Your task to perform on an android device: Clear all items from cart on ebay. Search for dell xps on ebay, select the first entry, add it to the cart, then select checkout. Image 0: 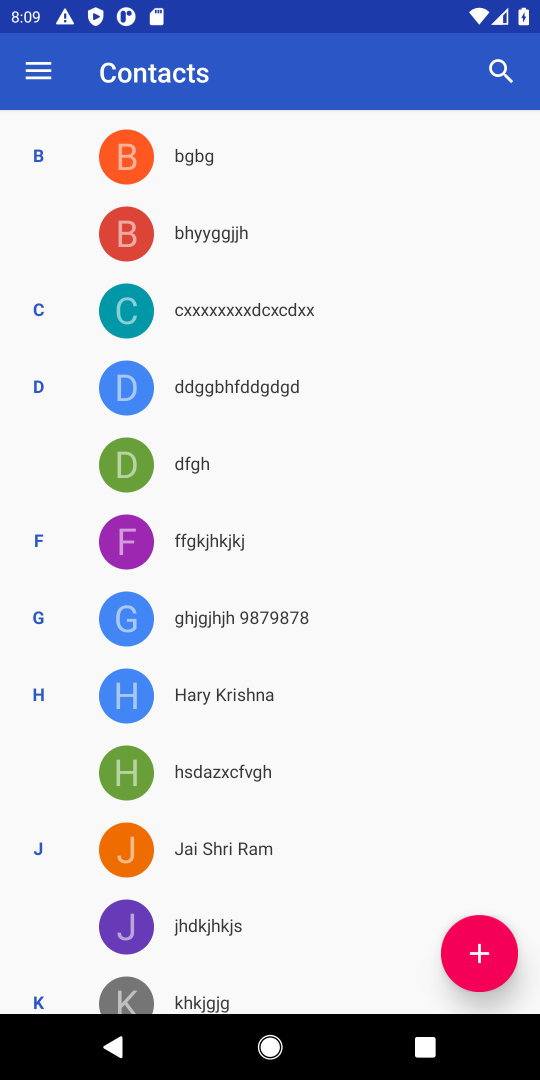
Step 0: press home button
Your task to perform on an android device: Clear all items from cart on ebay. Search for dell xps on ebay, select the first entry, add it to the cart, then select checkout. Image 1: 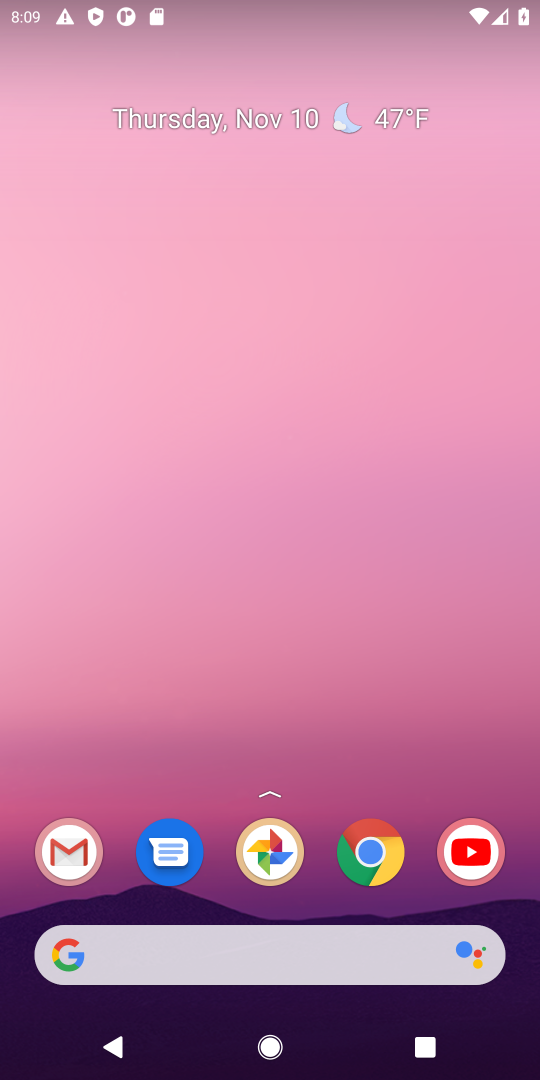
Step 1: click (373, 856)
Your task to perform on an android device: Clear all items from cart on ebay. Search for dell xps on ebay, select the first entry, add it to the cart, then select checkout. Image 2: 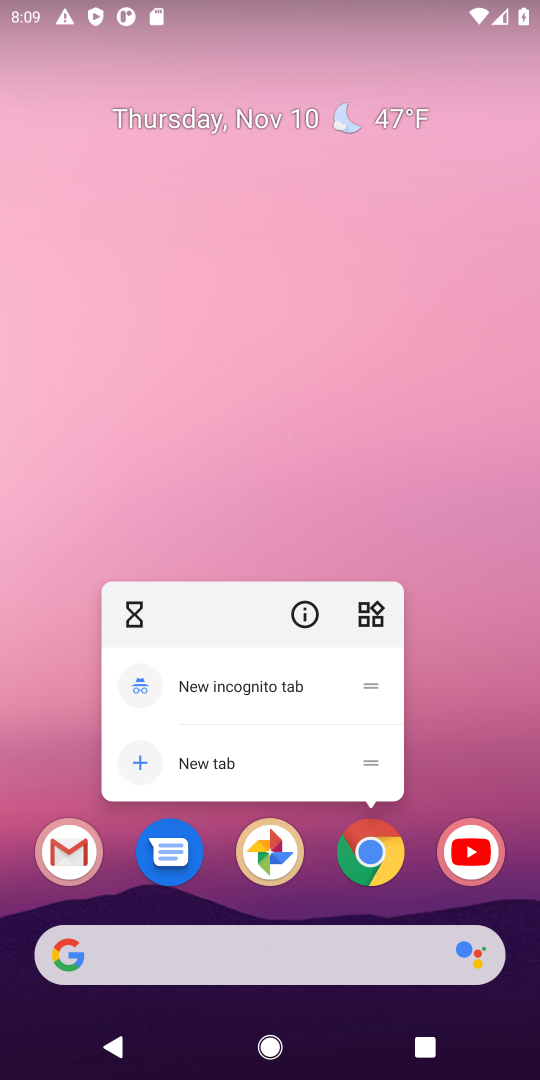
Step 2: click (373, 859)
Your task to perform on an android device: Clear all items from cart on ebay. Search for dell xps on ebay, select the first entry, add it to the cart, then select checkout. Image 3: 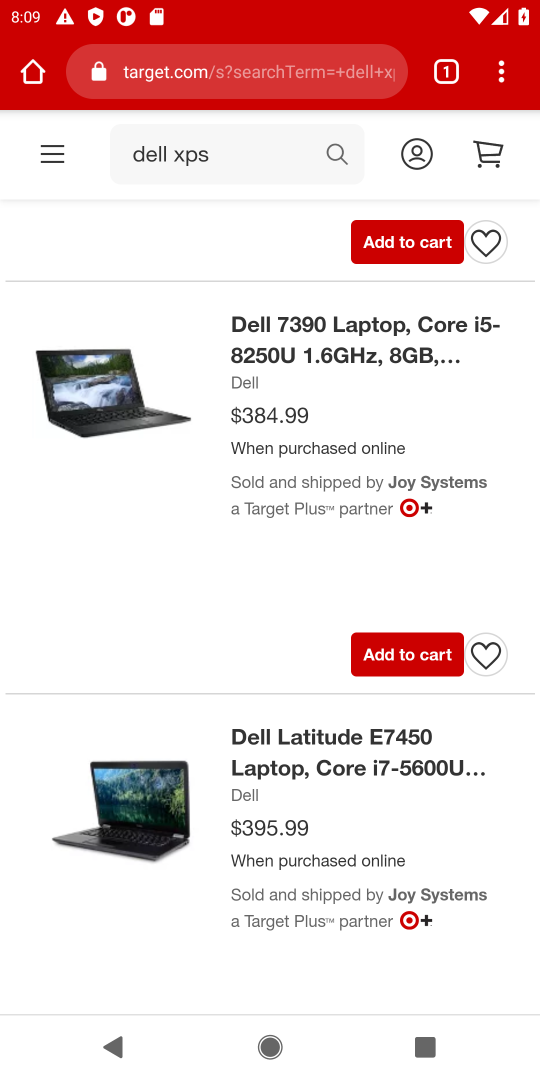
Step 3: click (262, 76)
Your task to perform on an android device: Clear all items from cart on ebay. Search for dell xps on ebay, select the first entry, add it to the cart, then select checkout. Image 4: 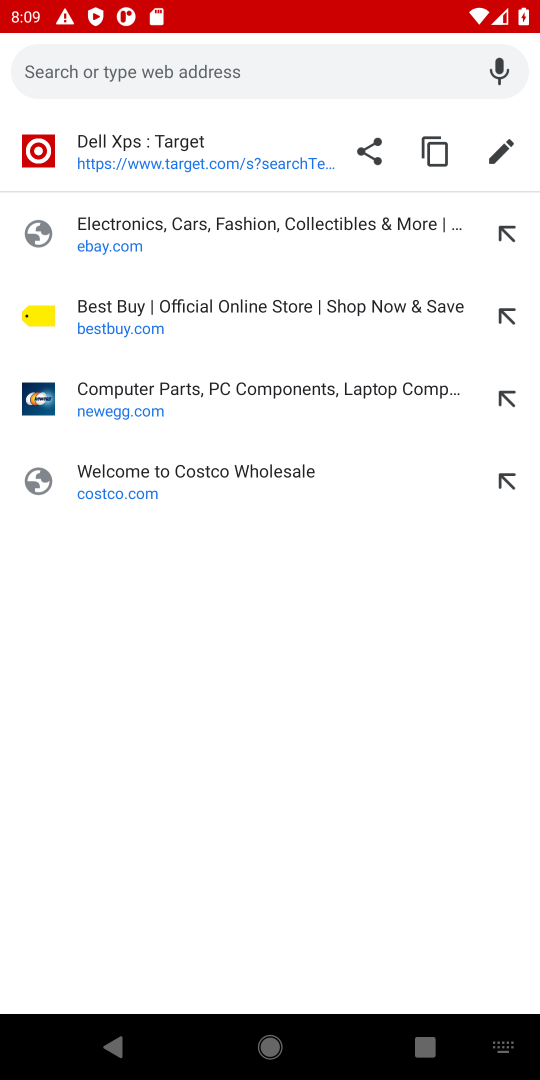
Step 4: type "ebay"
Your task to perform on an android device: Clear all items from cart on ebay. Search for dell xps on ebay, select the first entry, add it to the cart, then select checkout. Image 5: 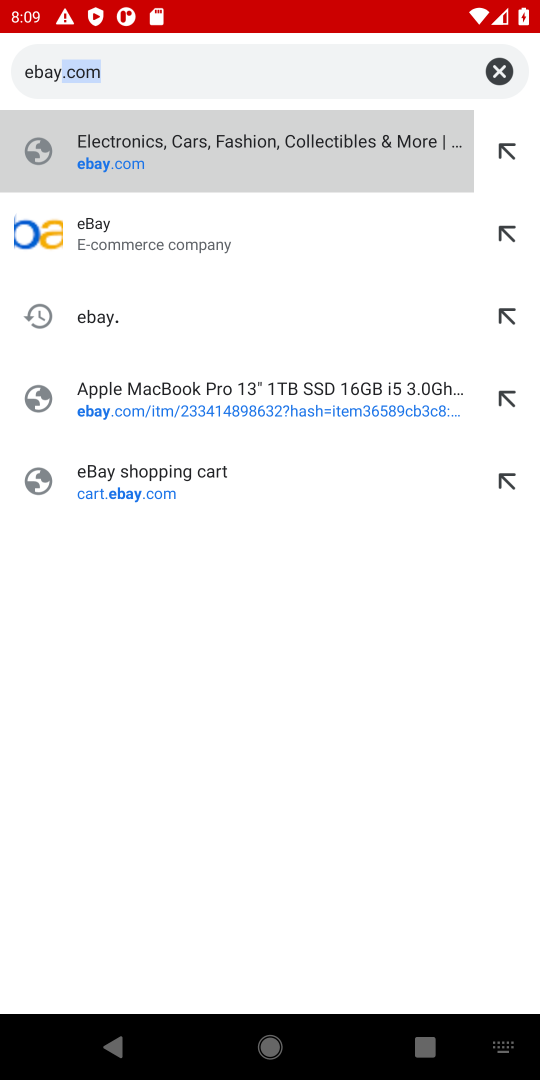
Step 5: press enter
Your task to perform on an android device: Clear all items from cart on ebay. Search for dell xps on ebay, select the first entry, add it to the cart, then select checkout. Image 6: 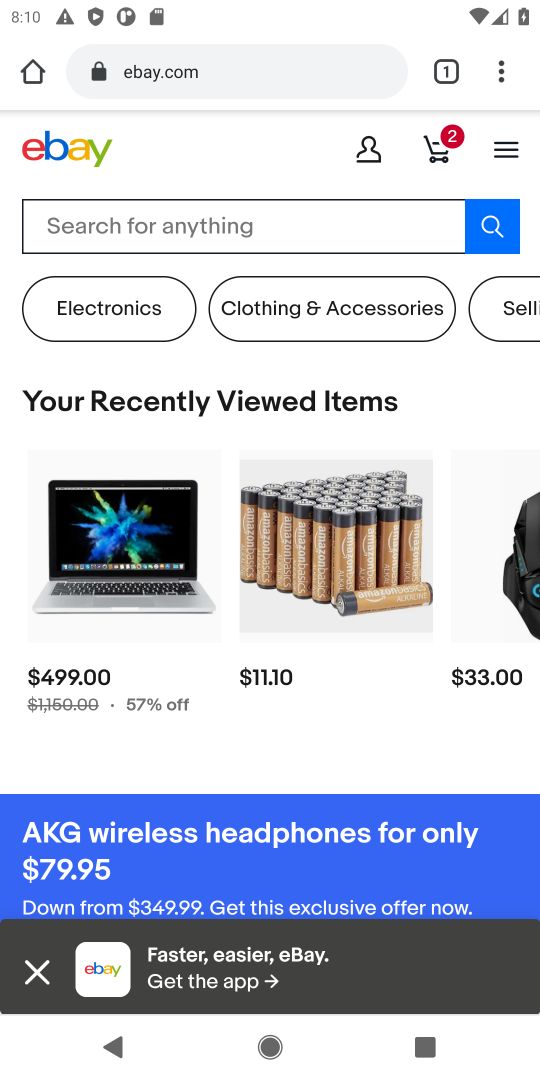
Step 6: click (436, 142)
Your task to perform on an android device: Clear all items from cart on ebay. Search for dell xps on ebay, select the first entry, add it to the cart, then select checkout. Image 7: 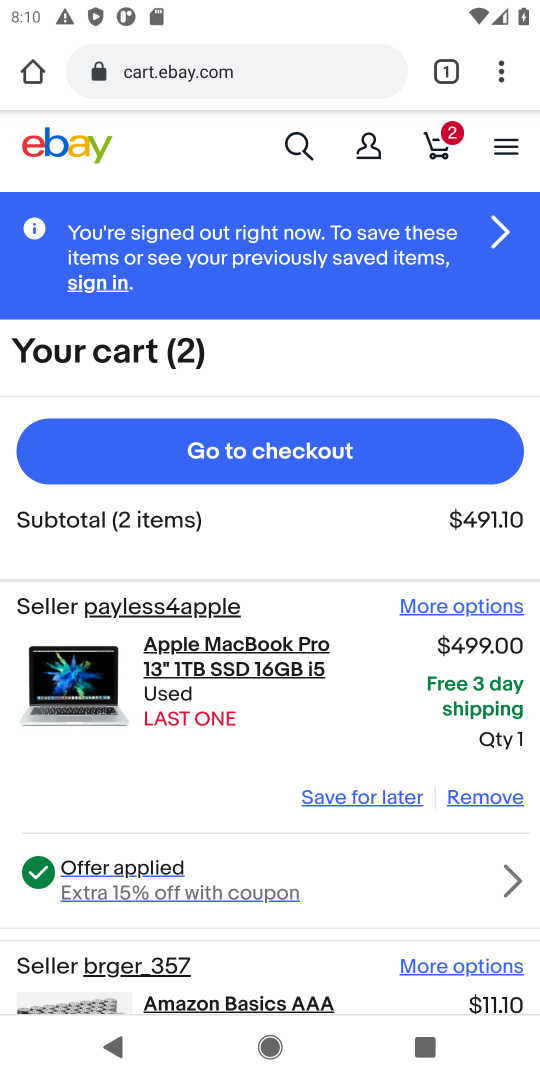
Step 7: click (475, 799)
Your task to perform on an android device: Clear all items from cart on ebay. Search for dell xps on ebay, select the first entry, add it to the cart, then select checkout. Image 8: 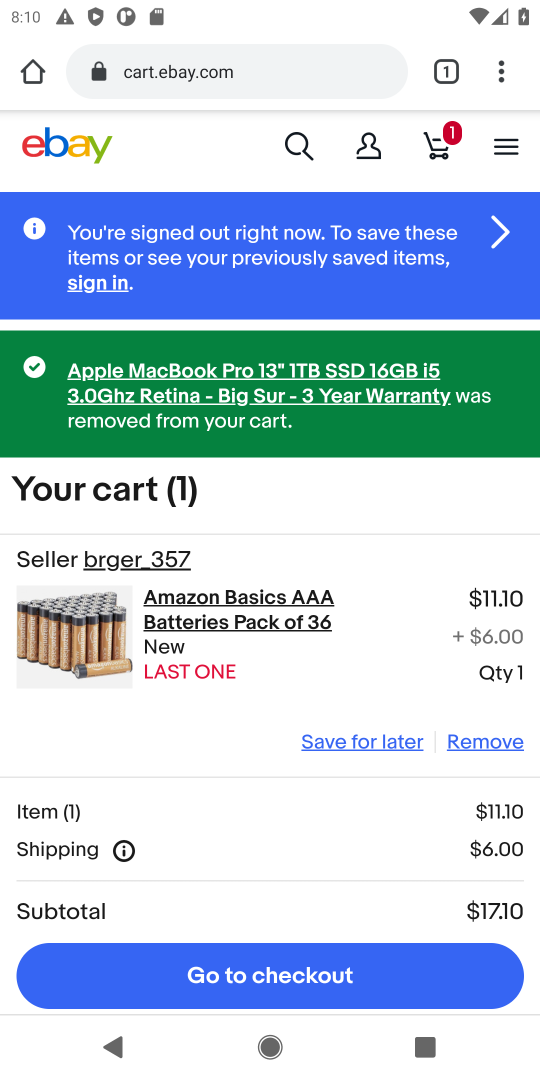
Step 8: click (469, 745)
Your task to perform on an android device: Clear all items from cart on ebay. Search for dell xps on ebay, select the first entry, add it to the cart, then select checkout. Image 9: 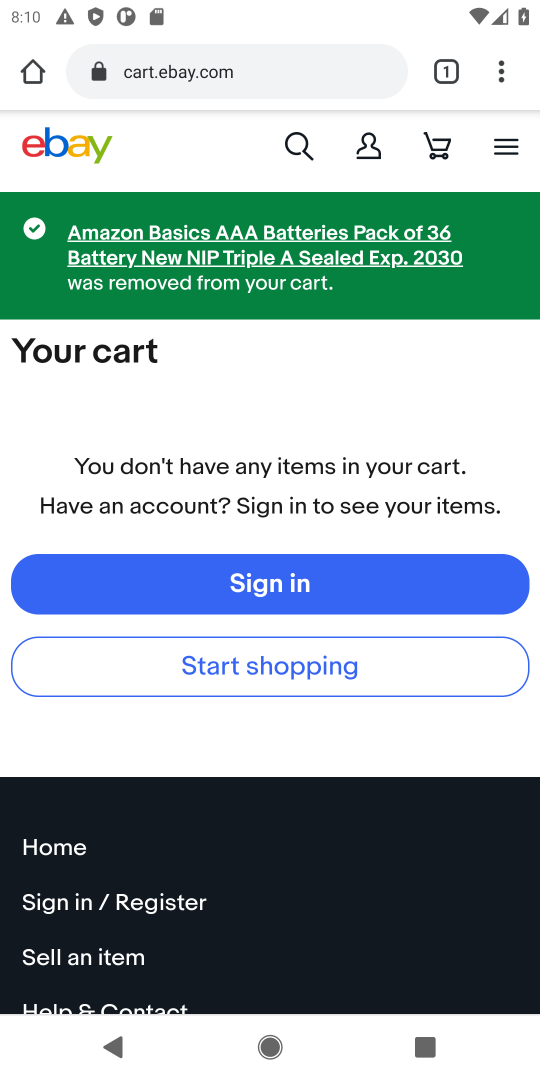
Step 9: click (298, 141)
Your task to perform on an android device: Clear all items from cart on ebay. Search for dell xps on ebay, select the first entry, add it to the cart, then select checkout. Image 10: 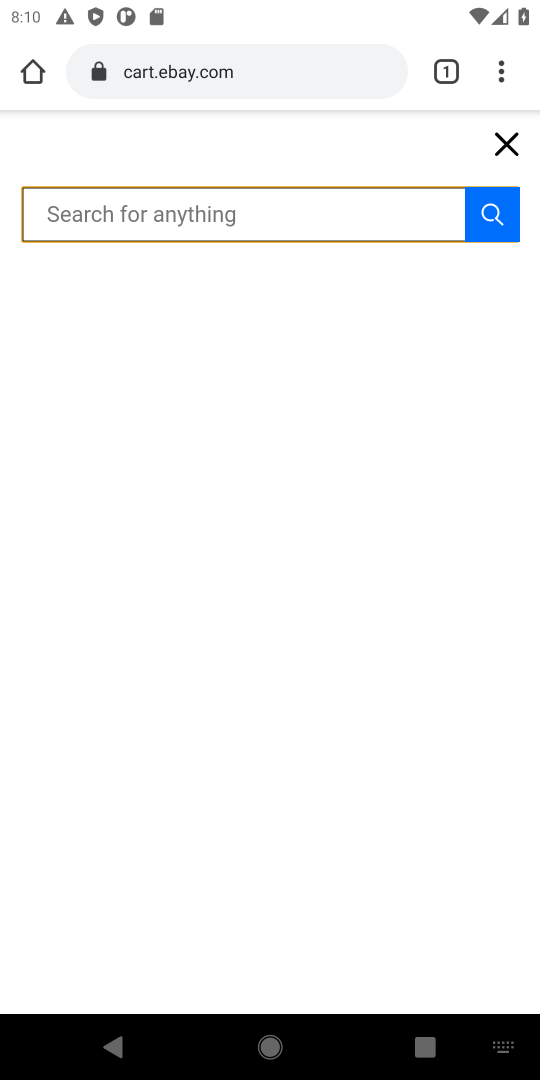
Step 10: click (175, 213)
Your task to perform on an android device: Clear all items from cart on ebay. Search for dell xps on ebay, select the first entry, add it to the cart, then select checkout. Image 11: 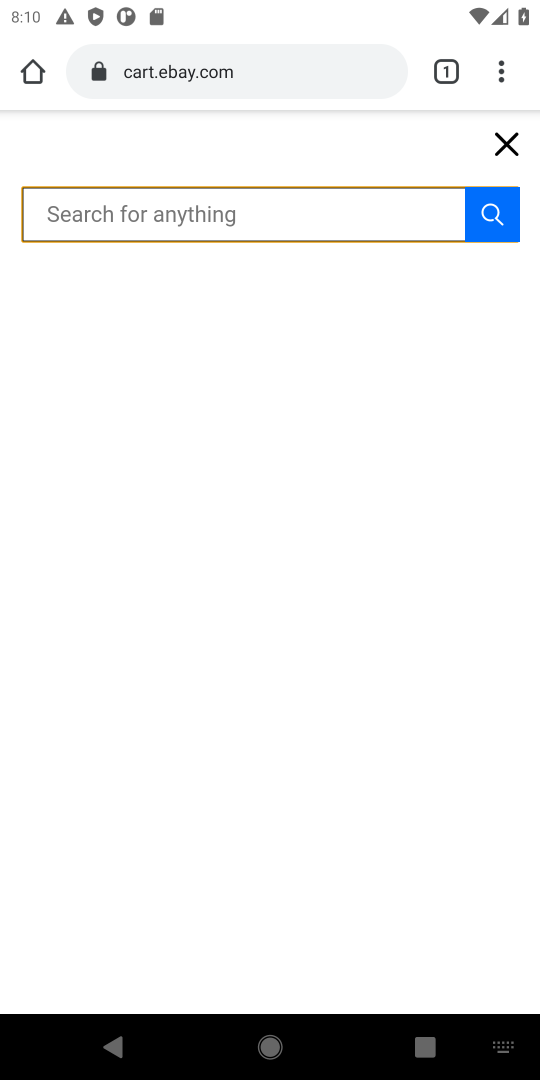
Step 11: type " dell xps"
Your task to perform on an android device: Clear all items from cart on ebay. Search for dell xps on ebay, select the first entry, add it to the cart, then select checkout. Image 12: 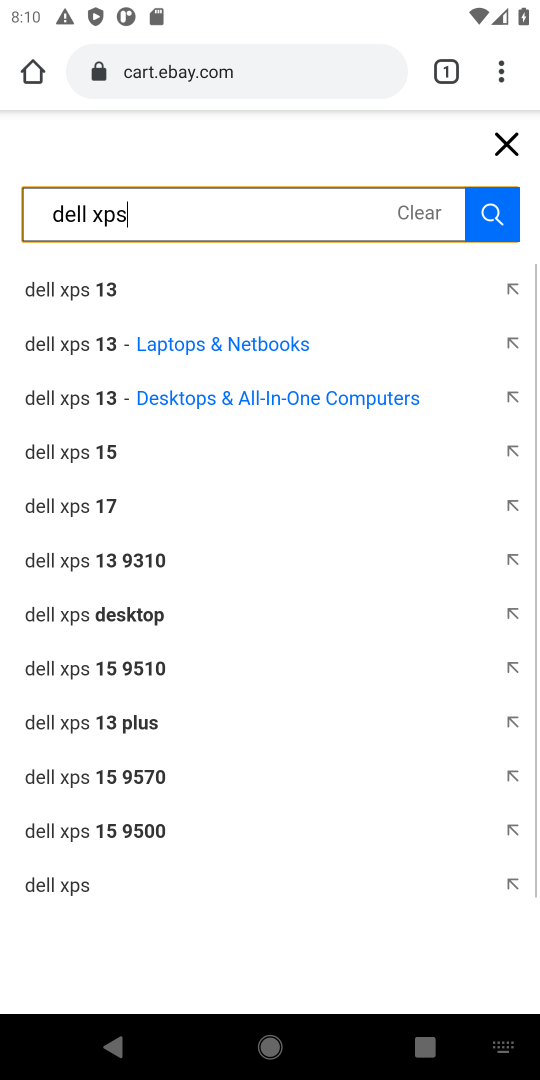
Step 12: press enter
Your task to perform on an android device: Clear all items from cart on ebay. Search for dell xps on ebay, select the first entry, add it to the cart, then select checkout. Image 13: 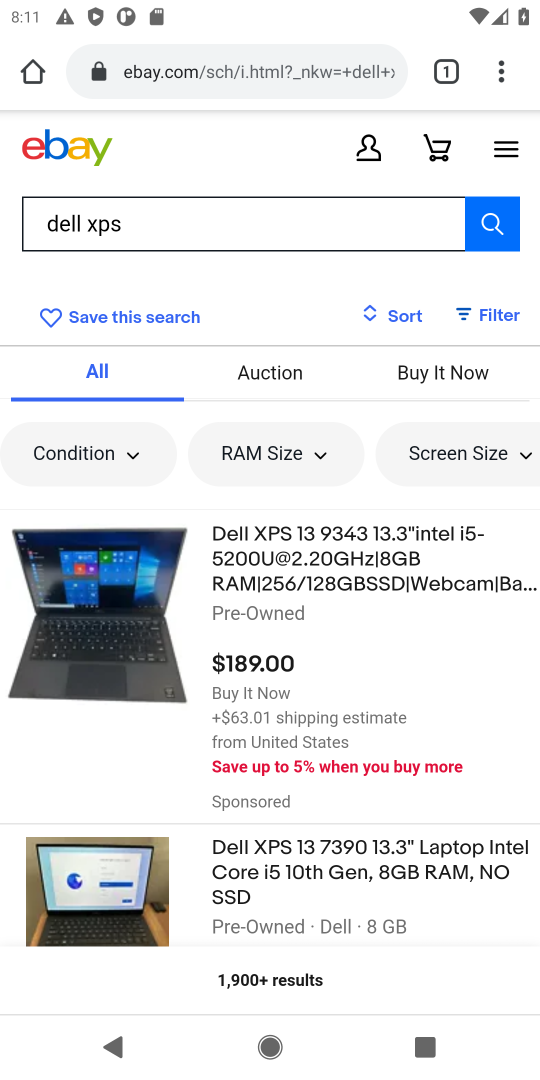
Step 13: click (288, 550)
Your task to perform on an android device: Clear all items from cart on ebay. Search for dell xps on ebay, select the first entry, add it to the cart, then select checkout. Image 14: 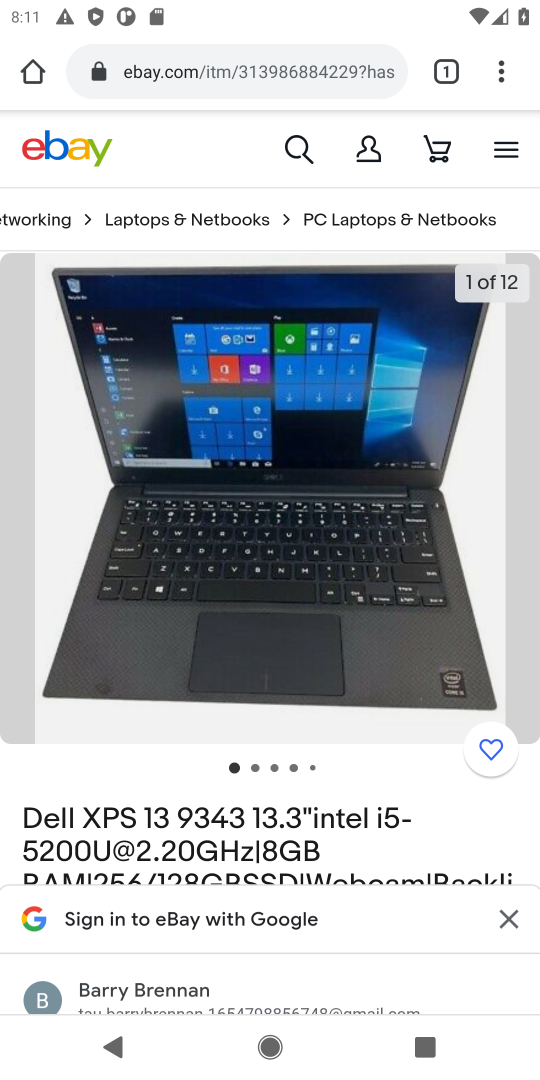
Step 14: drag from (225, 921) to (378, 399)
Your task to perform on an android device: Clear all items from cart on ebay. Search for dell xps on ebay, select the first entry, add it to the cart, then select checkout. Image 15: 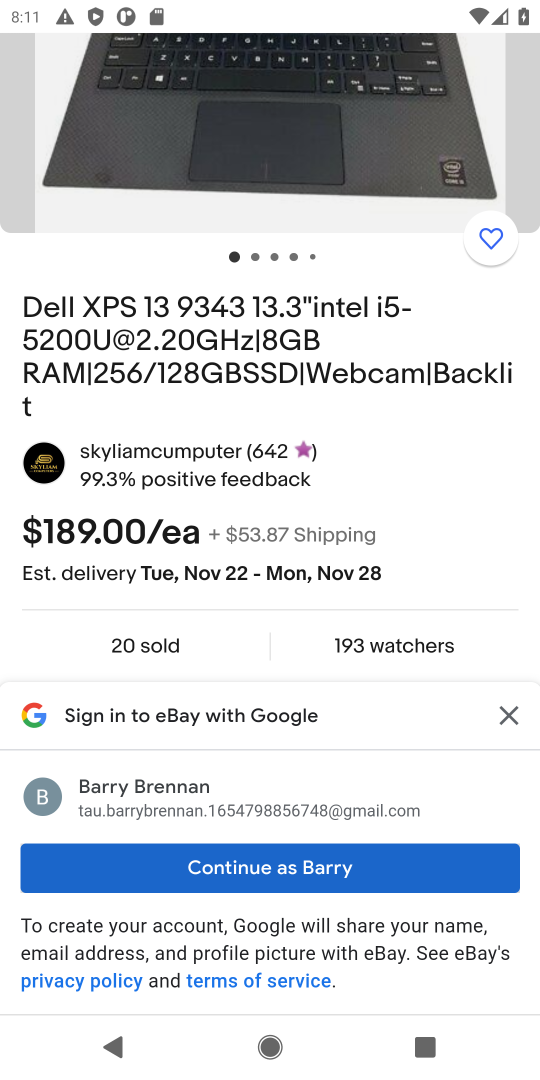
Step 15: click (505, 717)
Your task to perform on an android device: Clear all items from cart on ebay. Search for dell xps on ebay, select the first entry, add it to the cart, then select checkout. Image 16: 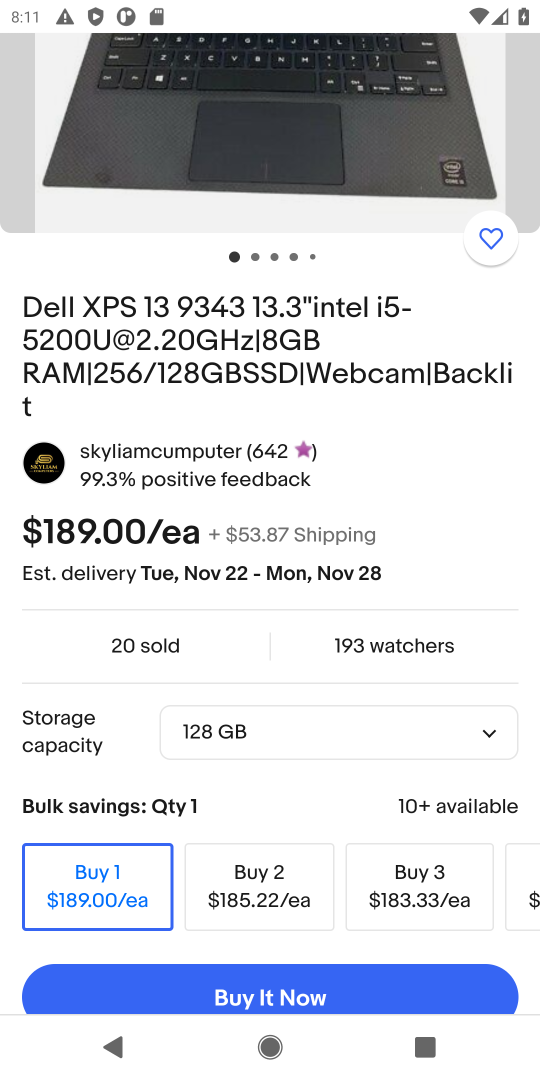
Step 16: drag from (266, 768) to (406, 343)
Your task to perform on an android device: Clear all items from cart on ebay. Search for dell xps on ebay, select the first entry, add it to the cart, then select checkout. Image 17: 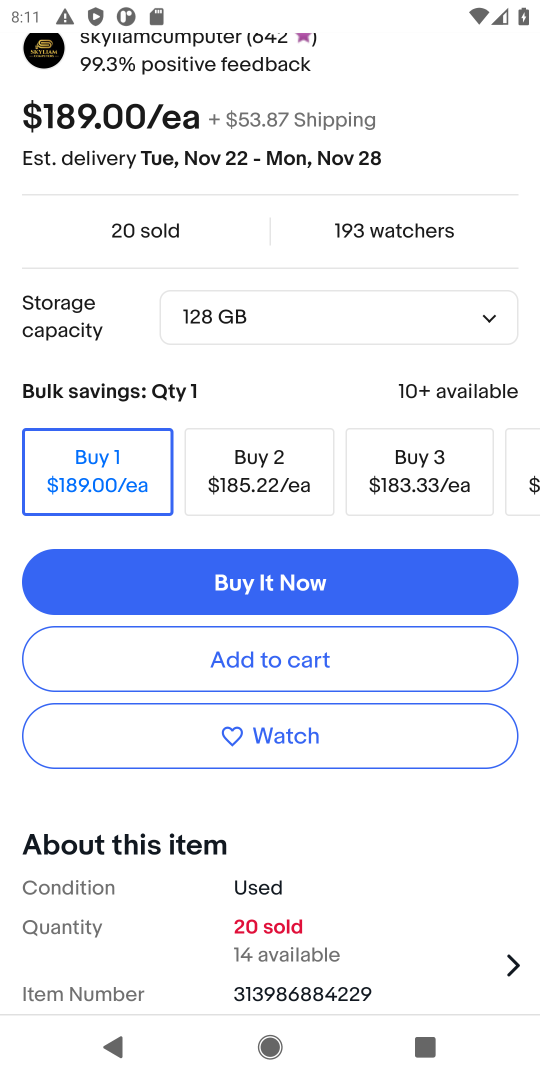
Step 17: click (282, 660)
Your task to perform on an android device: Clear all items from cart on ebay. Search for dell xps on ebay, select the first entry, add it to the cart, then select checkout. Image 18: 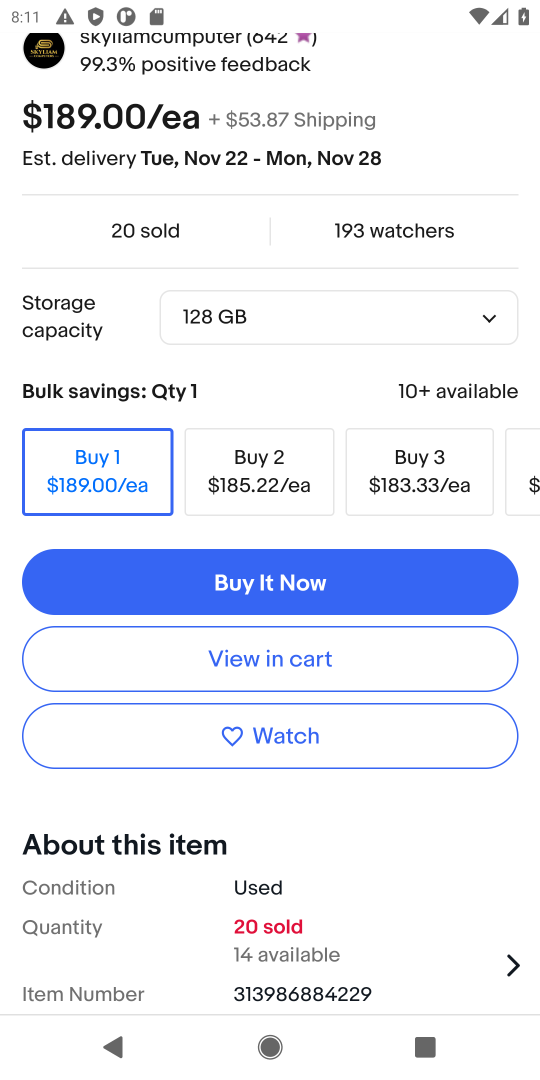
Step 18: click (282, 652)
Your task to perform on an android device: Clear all items from cart on ebay. Search for dell xps on ebay, select the first entry, add it to the cart, then select checkout. Image 19: 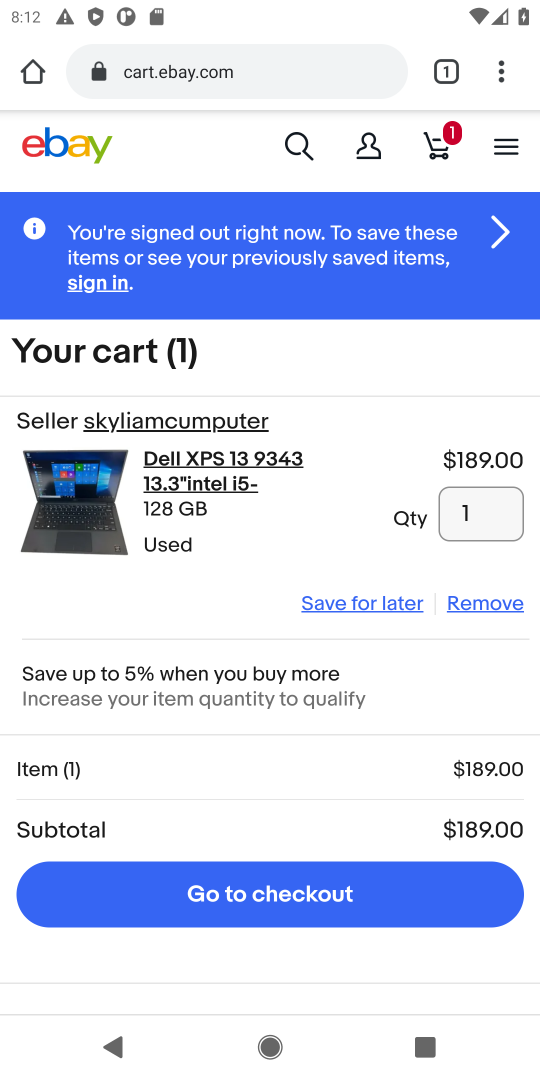
Step 19: click (309, 891)
Your task to perform on an android device: Clear all items from cart on ebay. Search for dell xps on ebay, select the first entry, add it to the cart, then select checkout. Image 20: 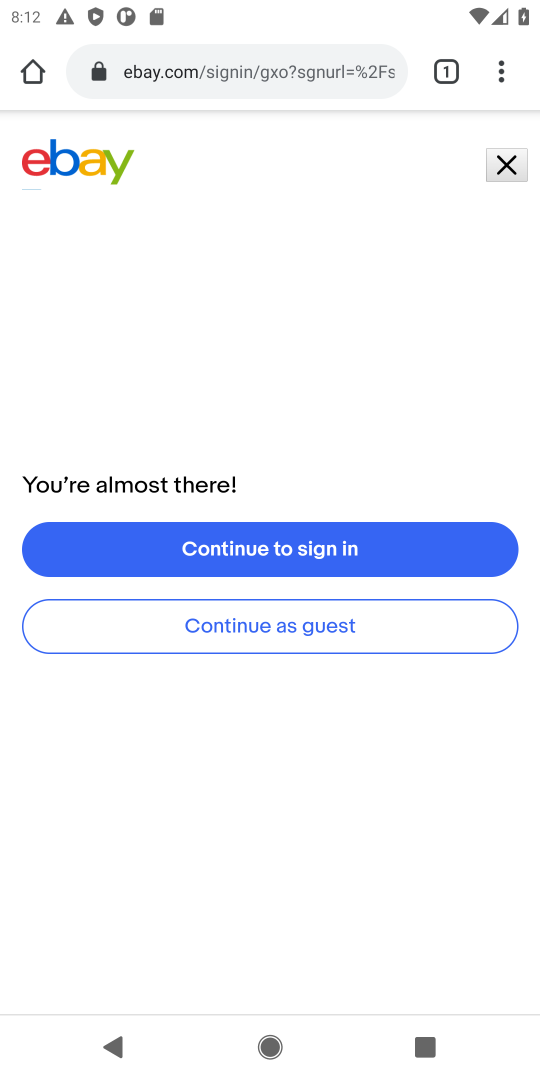
Step 20: task complete